Your task to perform on an android device: Go to CNN.com Image 0: 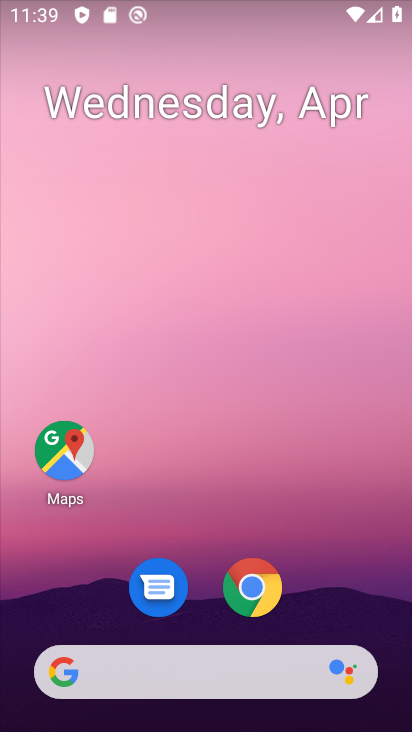
Step 0: click (251, 592)
Your task to perform on an android device: Go to CNN.com Image 1: 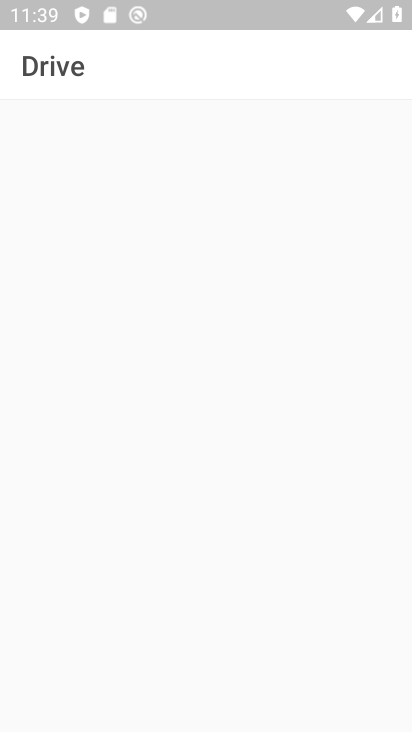
Step 1: press home button
Your task to perform on an android device: Go to CNN.com Image 2: 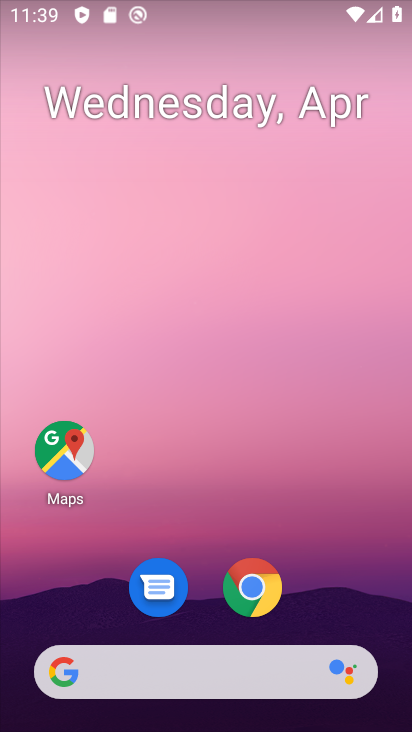
Step 2: click (240, 585)
Your task to perform on an android device: Go to CNN.com Image 3: 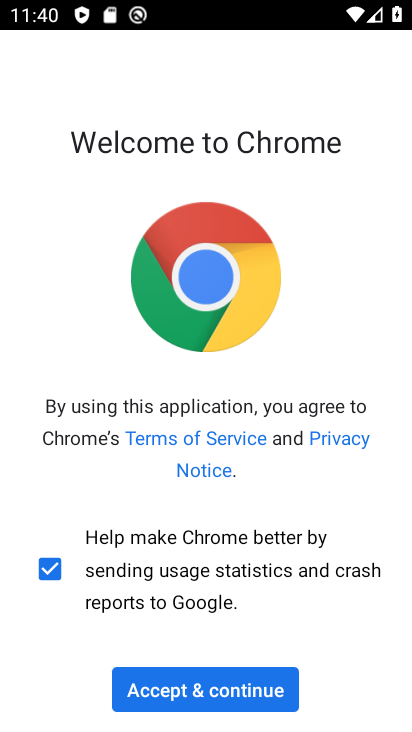
Step 3: click (265, 696)
Your task to perform on an android device: Go to CNN.com Image 4: 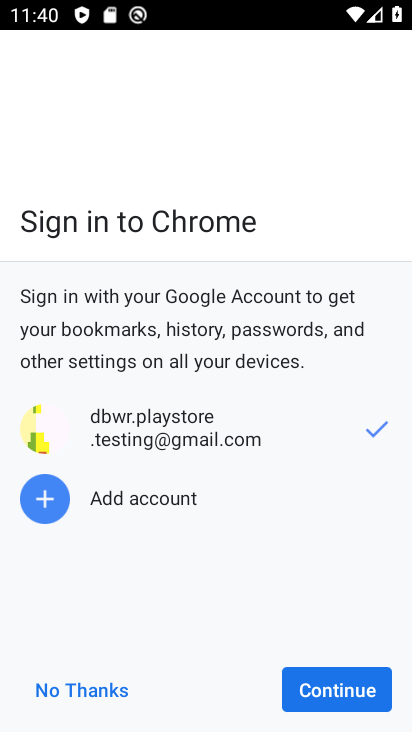
Step 4: click (339, 694)
Your task to perform on an android device: Go to CNN.com Image 5: 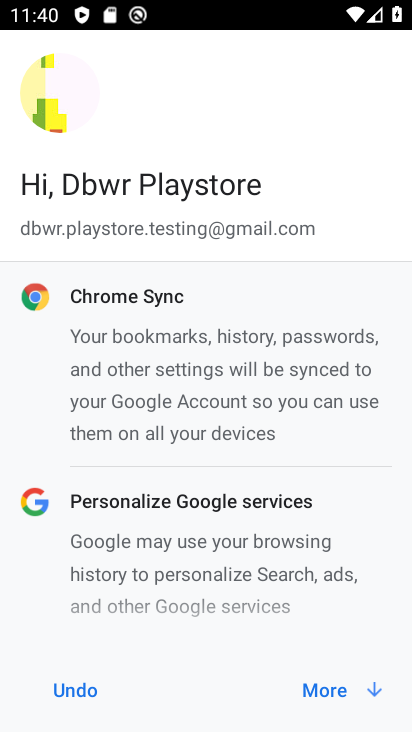
Step 5: click (339, 694)
Your task to perform on an android device: Go to CNN.com Image 6: 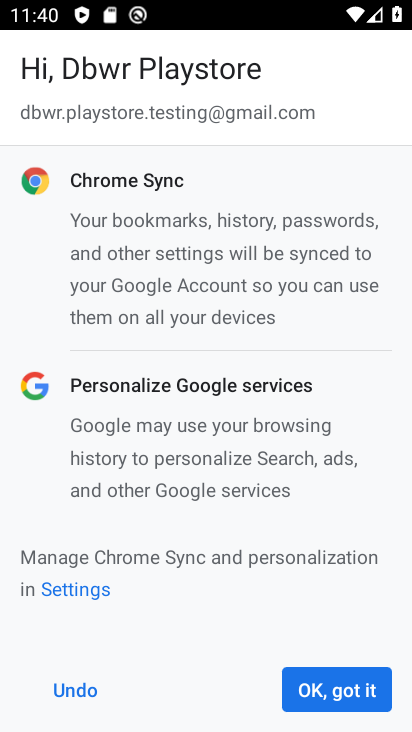
Step 6: click (339, 694)
Your task to perform on an android device: Go to CNN.com Image 7: 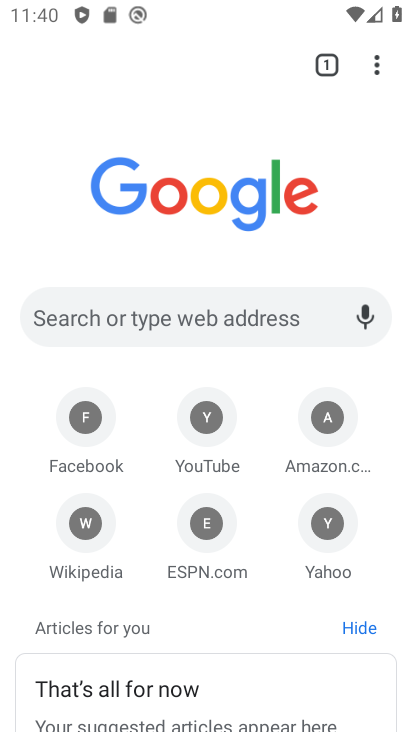
Step 7: click (202, 320)
Your task to perform on an android device: Go to CNN.com Image 8: 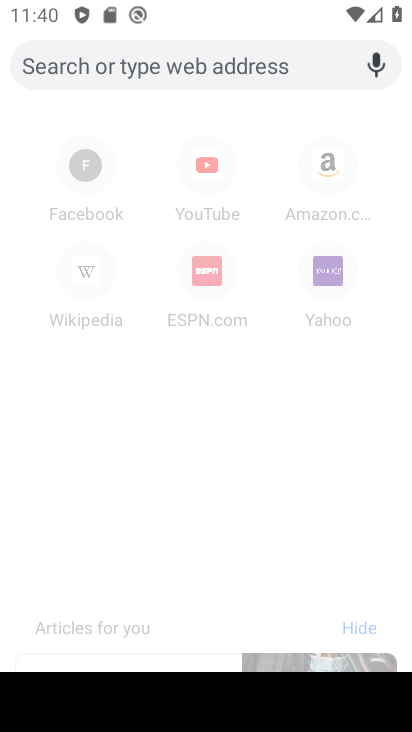
Step 8: type "CNN.com"
Your task to perform on an android device: Go to CNN.com Image 9: 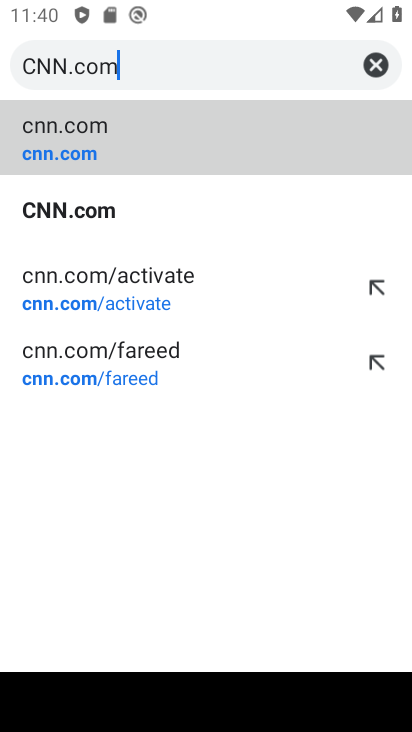
Step 9: click (107, 141)
Your task to perform on an android device: Go to CNN.com Image 10: 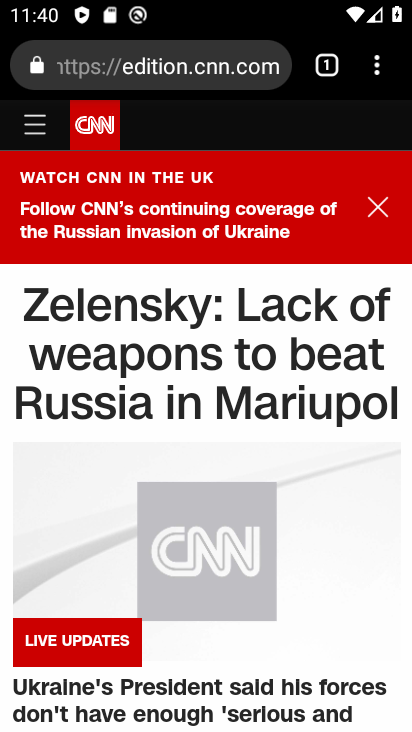
Step 10: task complete